Your task to perform on an android device: Open accessibility settings Image 0: 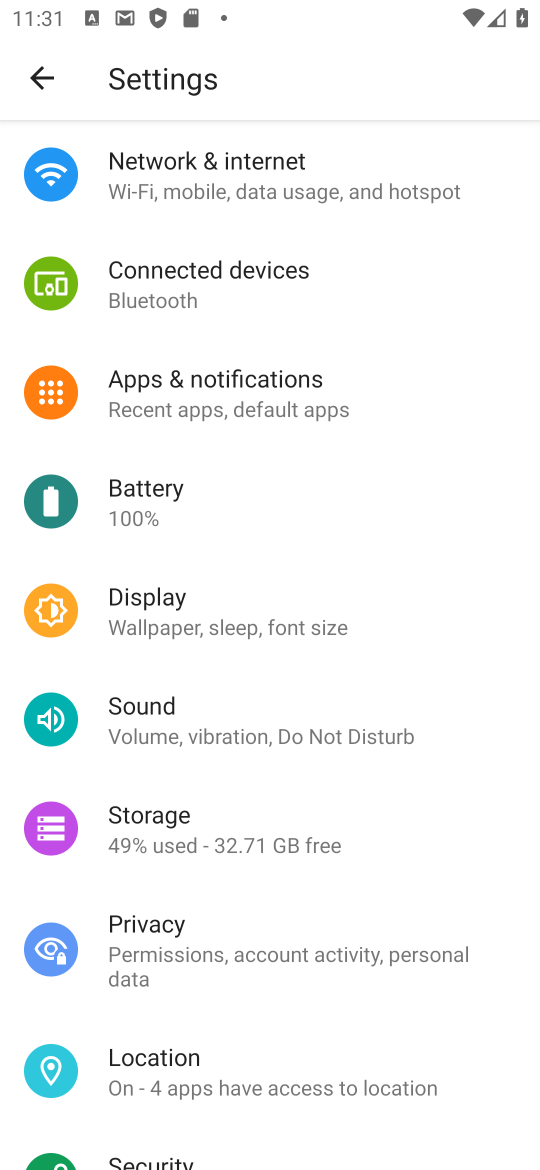
Step 0: drag from (294, 1022) to (308, 692)
Your task to perform on an android device: Open accessibility settings Image 1: 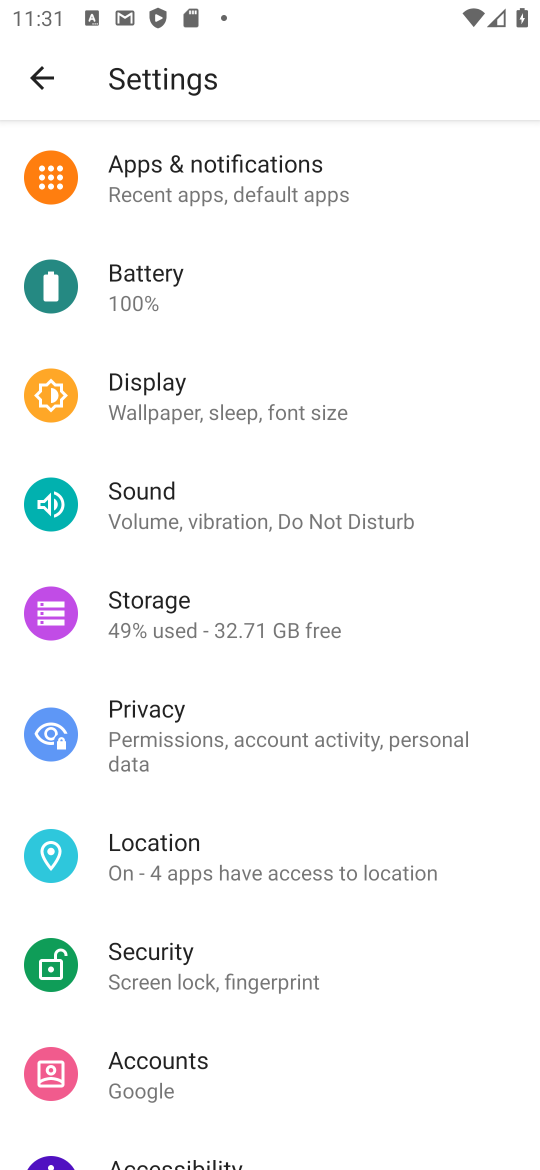
Step 1: drag from (341, 1016) to (312, 464)
Your task to perform on an android device: Open accessibility settings Image 2: 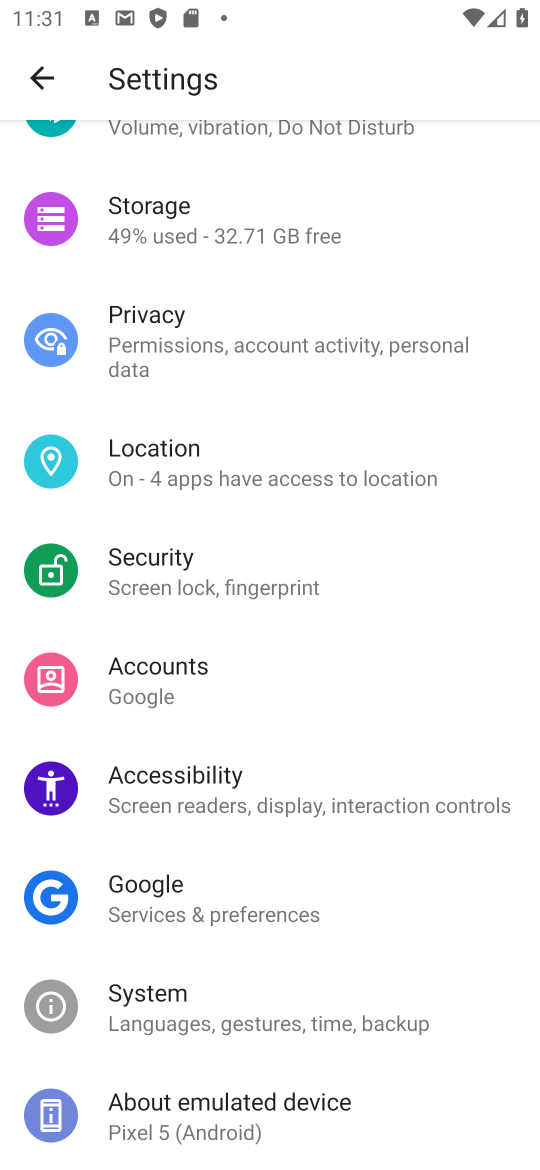
Step 2: click (286, 774)
Your task to perform on an android device: Open accessibility settings Image 3: 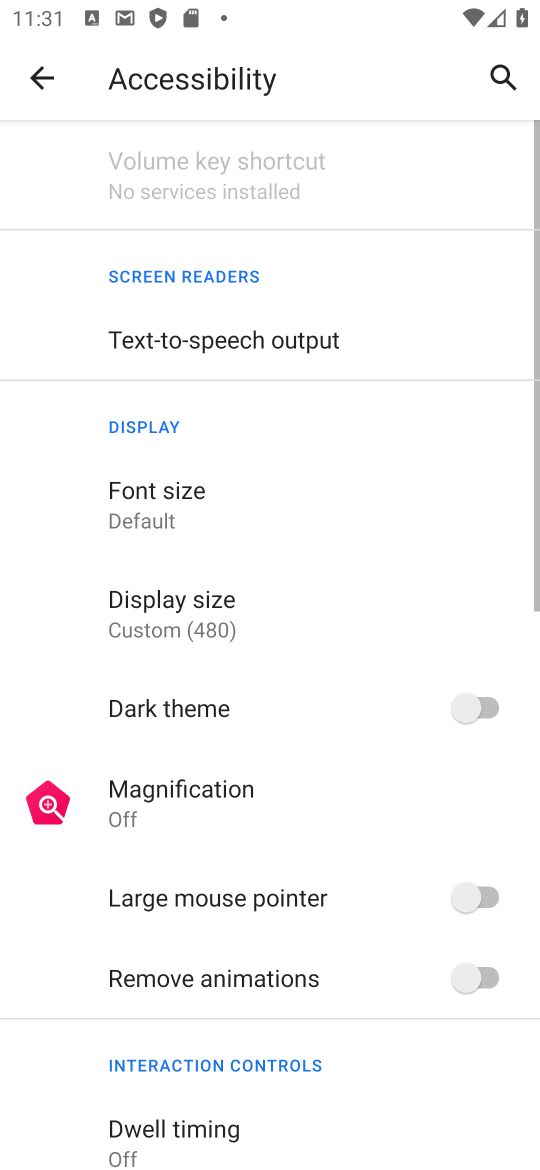
Step 3: task complete